Your task to perform on an android device: see sites visited before in the chrome app Image 0: 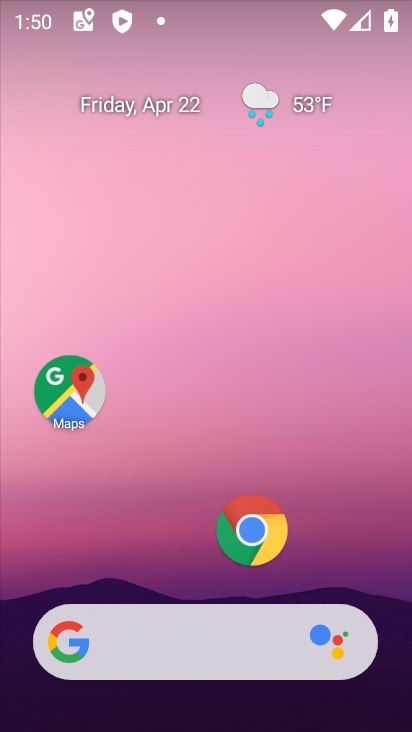
Step 0: click (173, 21)
Your task to perform on an android device: see sites visited before in the chrome app Image 1: 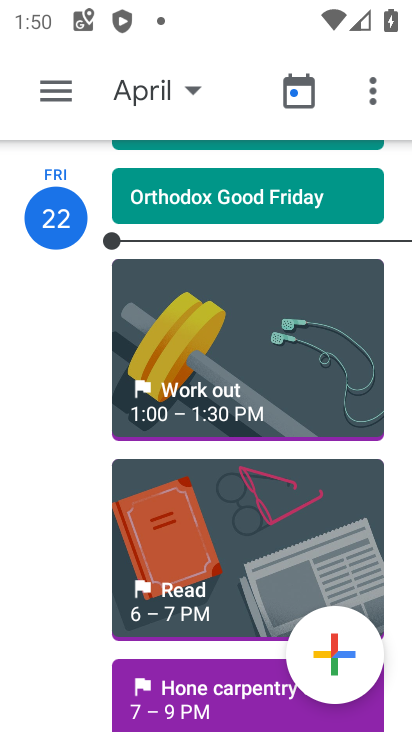
Step 1: press home button
Your task to perform on an android device: see sites visited before in the chrome app Image 2: 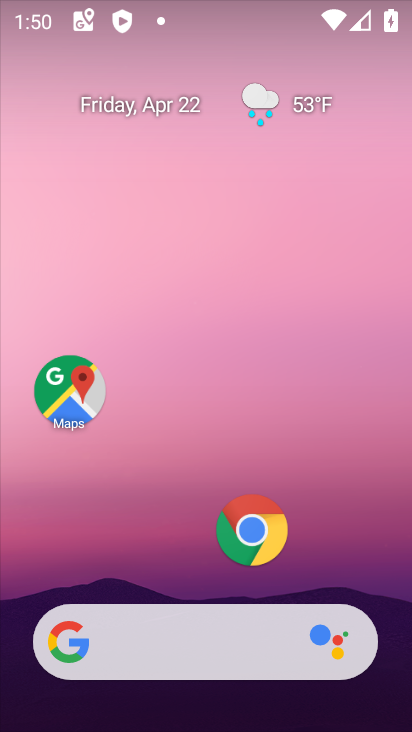
Step 2: click (279, 531)
Your task to perform on an android device: see sites visited before in the chrome app Image 3: 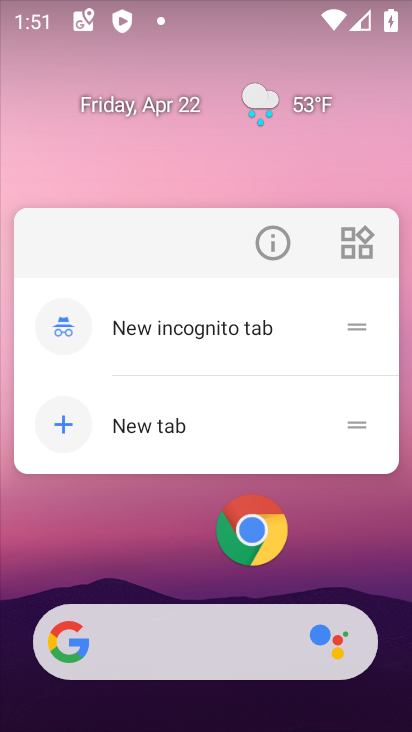
Step 3: click (250, 533)
Your task to perform on an android device: see sites visited before in the chrome app Image 4: 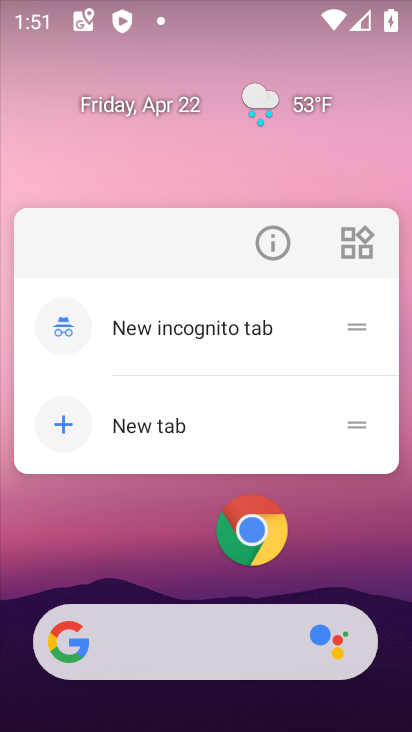
Step 4: click (250, 533)
Your task to perform on an android device: see sites visited before in the chrome app Image 5: 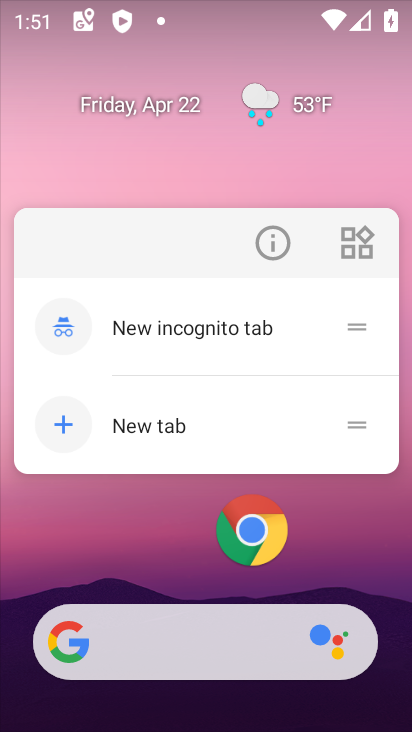
Step 5: click (250, 533)
Your task to perform on an android device: see sites visited before in the chrome app Image 6: 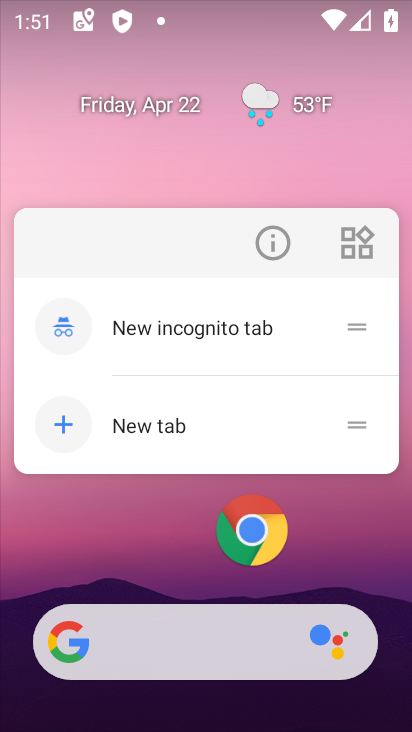
Step 6: click (250, 533)
Your task to perform on an android device: see sites visited before in the chrome app Image 7: 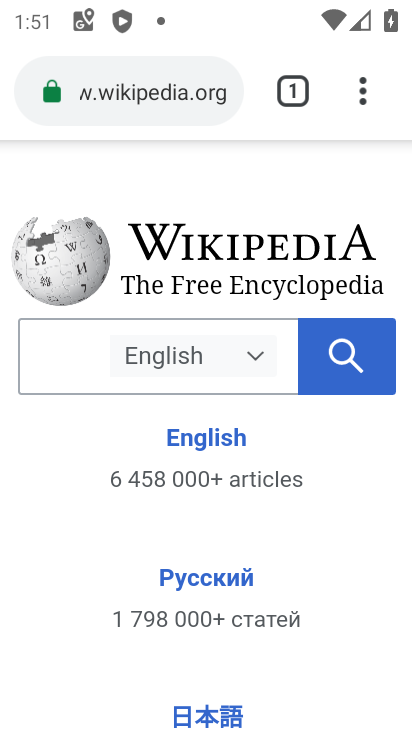
Step 7: task complete